Your task to perform on an android device: Open location settings Image 0: 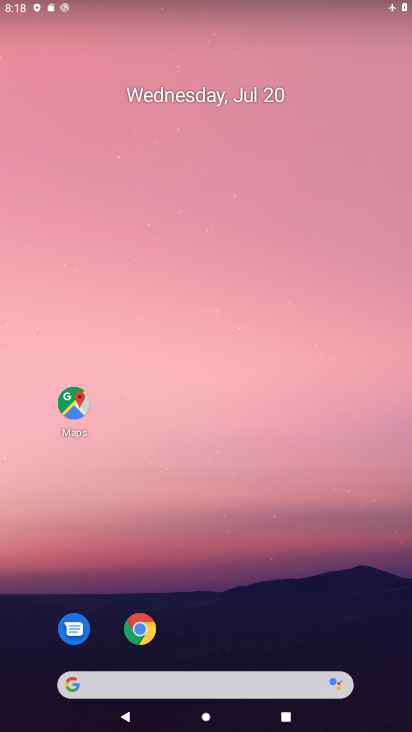
Step 0: drag from (312, 693) to (219, 210)
Your task to perform on an android device: Open location settings Image 1: 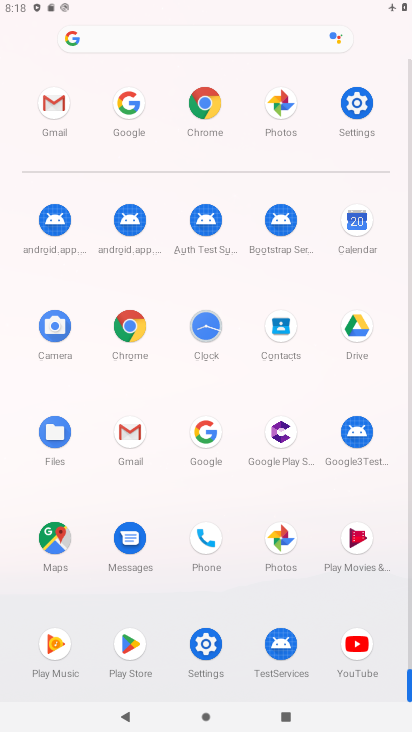
Step 1: click (352, 104)
Your task to perform on an android device: Open location settings Image 2: 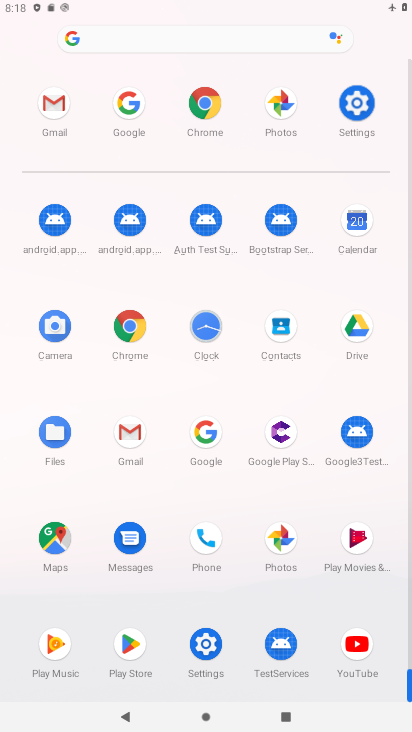
Step 2: click (353, 104)
Your task to perform on an android device: Open location settings Image 3: 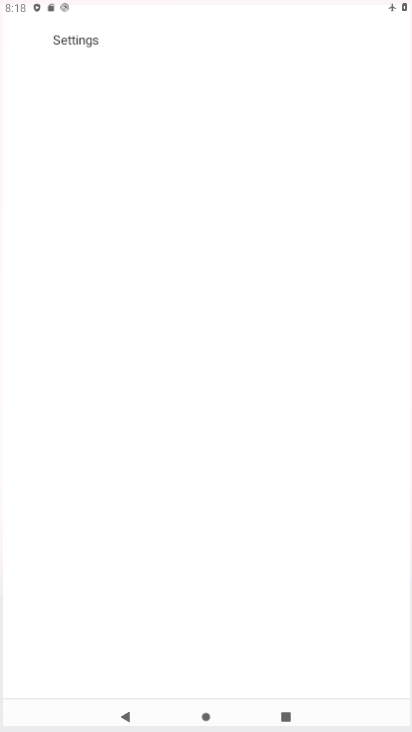
Step 3: click (357, 107)
Your task to perform on an android device: Open location settings Image 4: 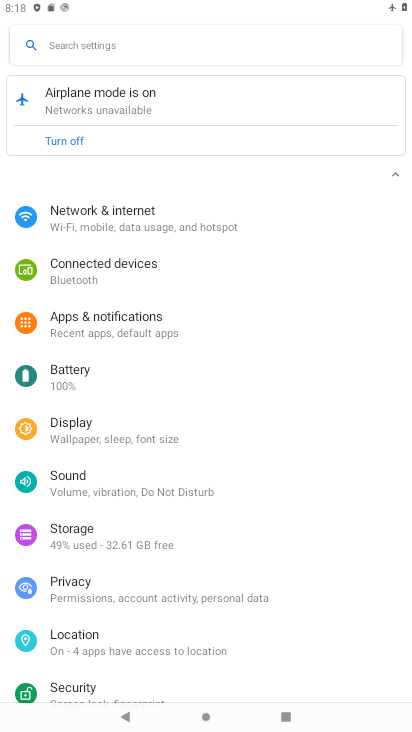
Step 4: click (74, 641)
Your task to perform on an android device: Open location settings Image 5: 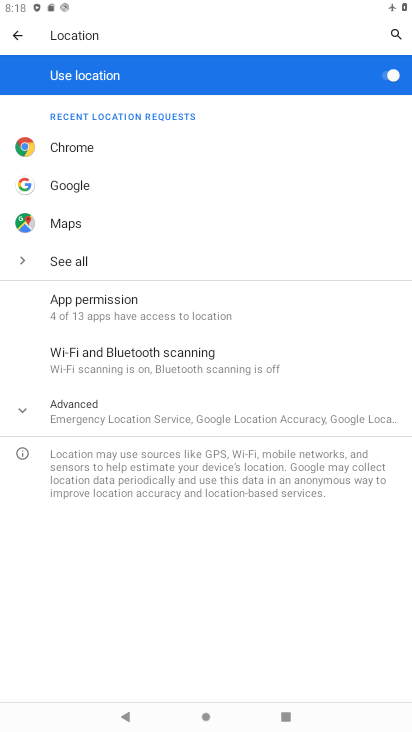
Step 5: task complete